Your task to perform on an android device: Go to wifi settings Image 0: 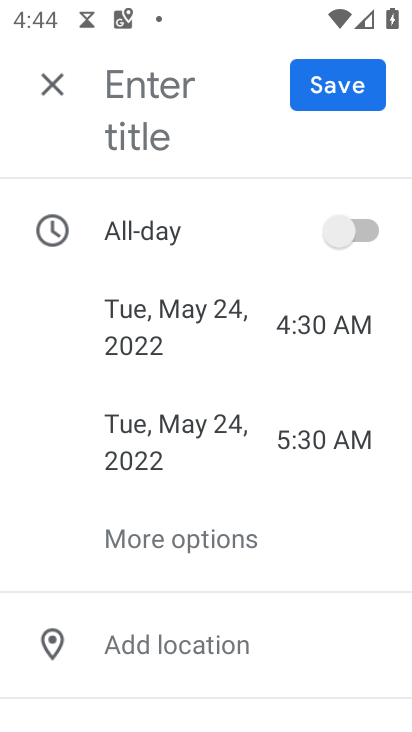
Step 0: press home button
Your task to perform on an android device: Go to wifi settings Image 1: 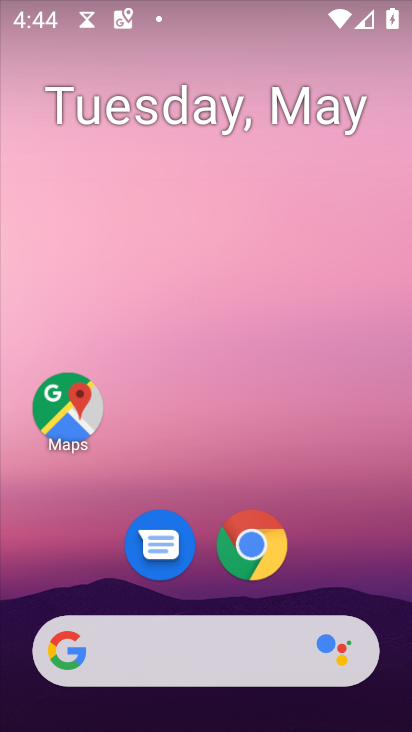
Step 1: drag from (343, 554) to (266, 162)
Your task to perform on an android device: Go to wifi settings Image 2: 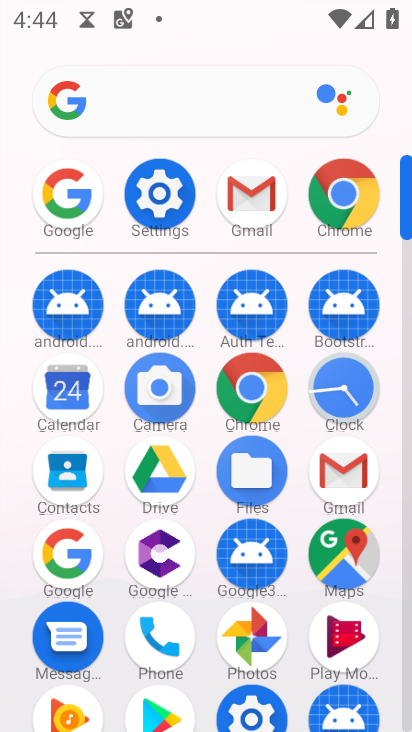
Step 2: click (157, 190)
Your task to perform on an android device: Go to wifi settings Image 3: 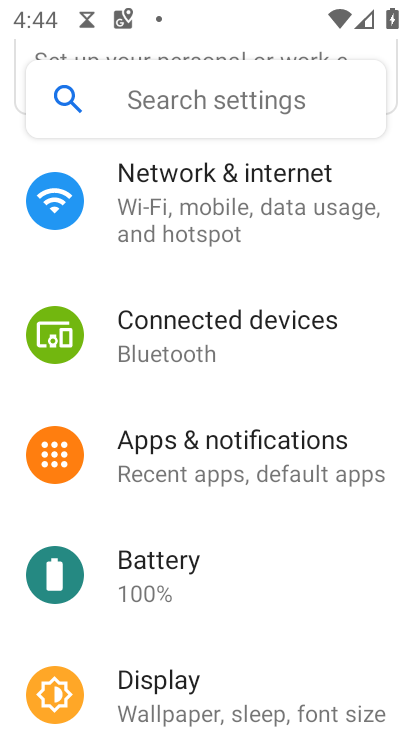
Step 3: click (197, 195)
Your task to perform on an android device: Go to wifi settings Image 4: 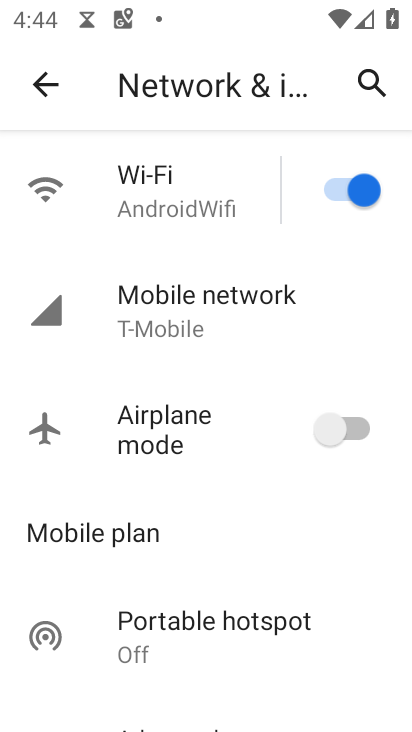
Step 4: click (178, 200)
Your task to perform on an android device: Go to wifi settings Image 5: 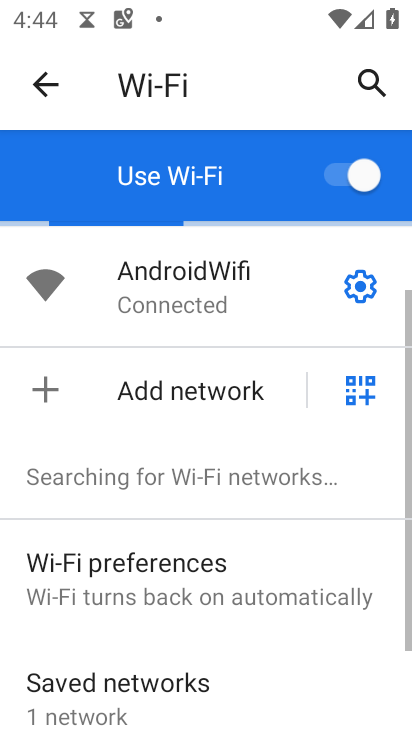
Step 5: click (363, 284)
Your task to perform on an android device: Go to wifi settings Image 6: 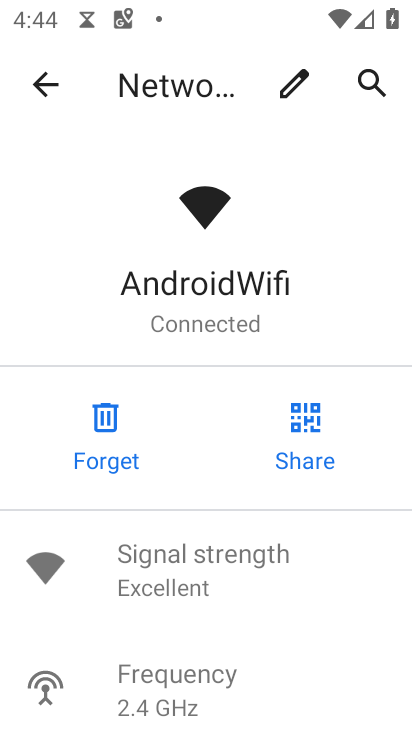
Step 6: task complete